Your task to perform on an android device: Clear the cart on target.com. Image 0: 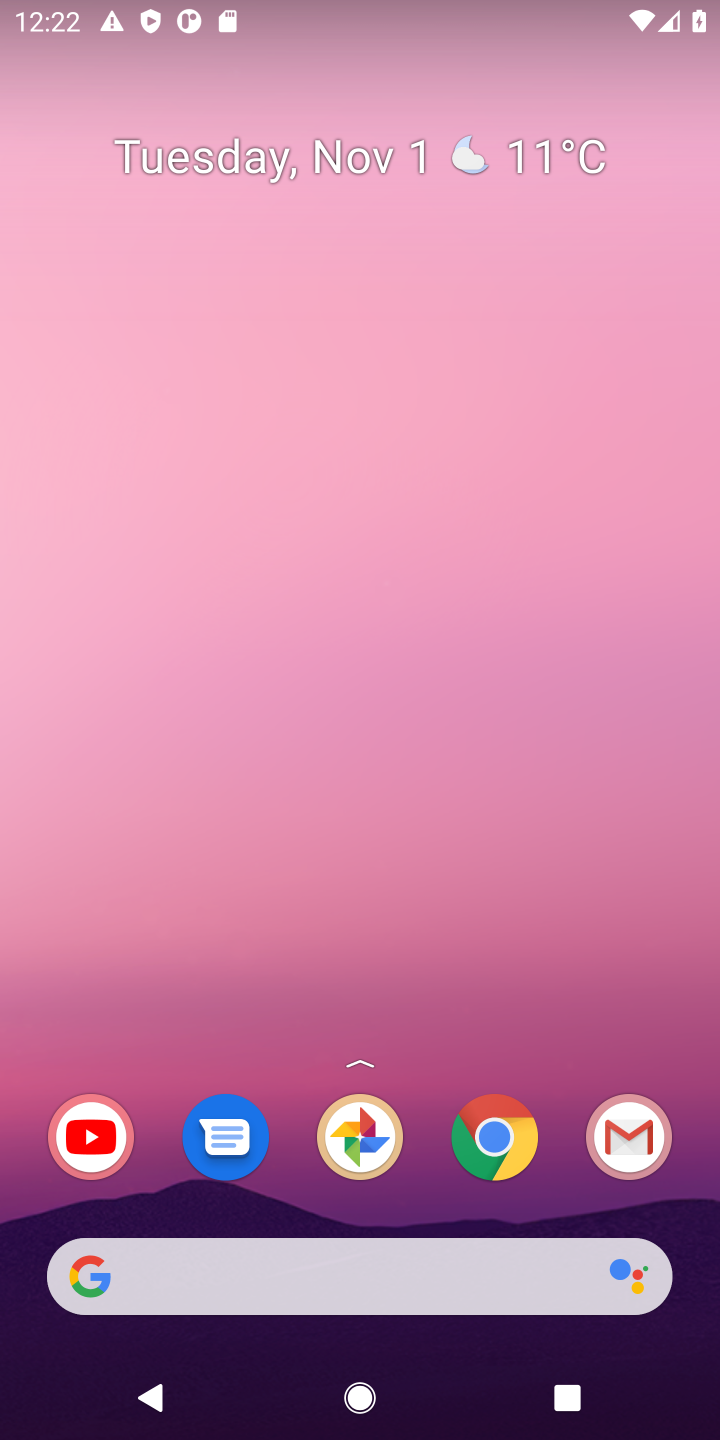
Step 0: click (497, 1151)
Your task to perform on an android device: Clear the cart on target.com. Image 1: 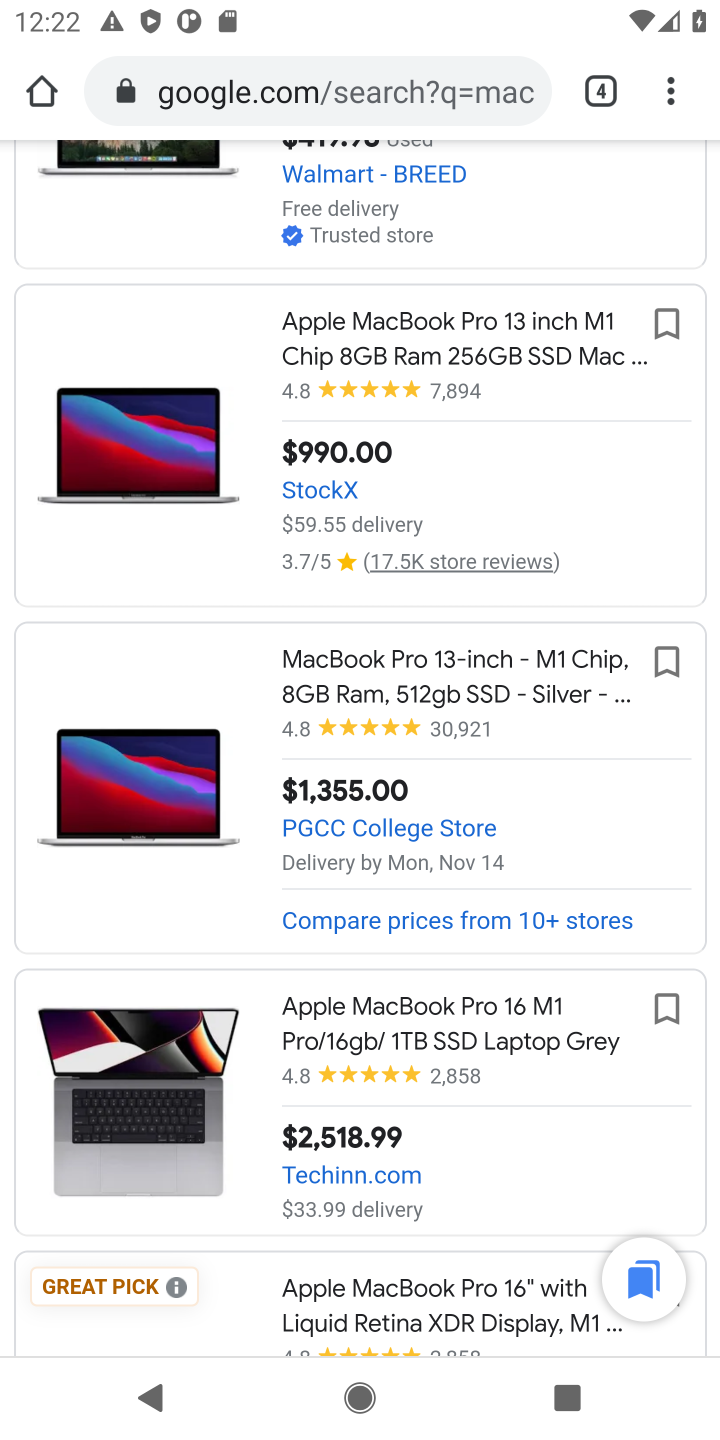
Step 1: click (600, 92)
Your task to perform on an android device: Clear the cart on target.com. Image 2: 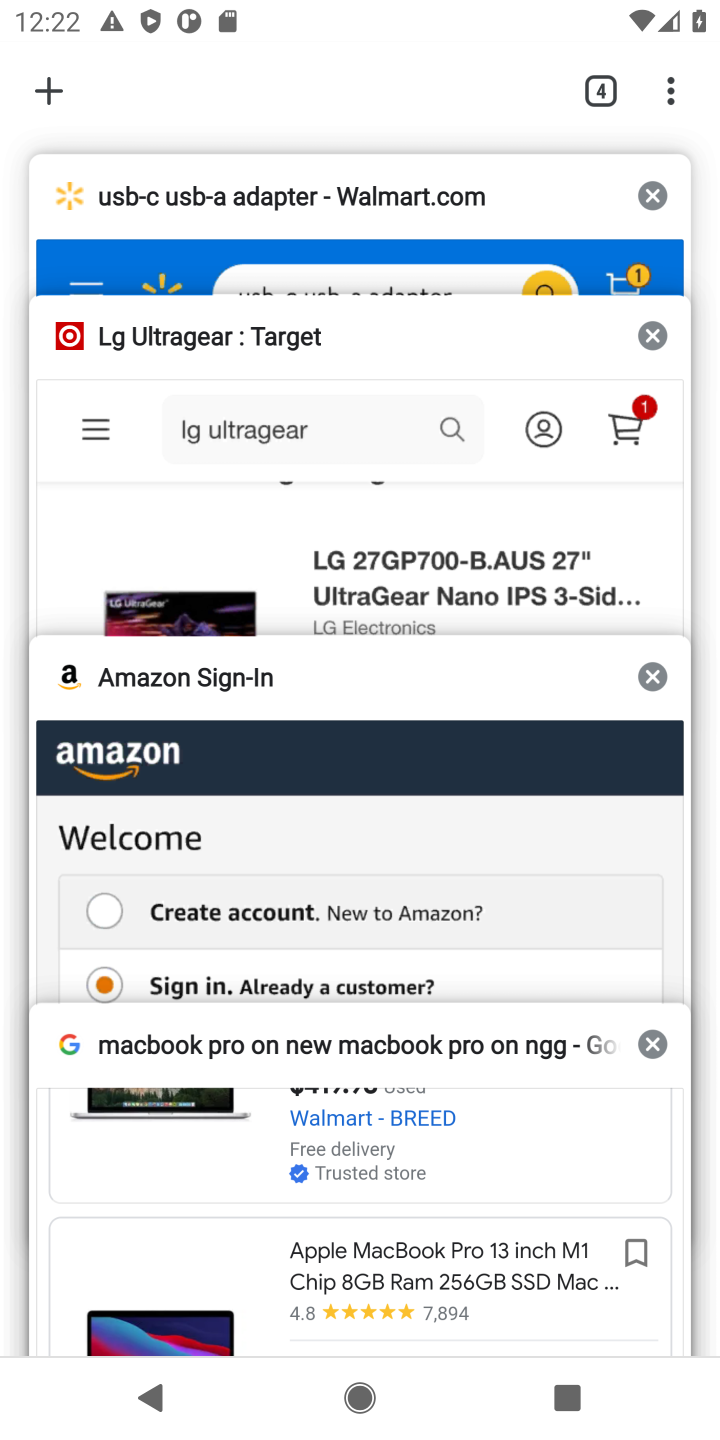
Step 2: click (356, 432)
Your task to perform on an android device: Clear the cart on target.com. Image 3: 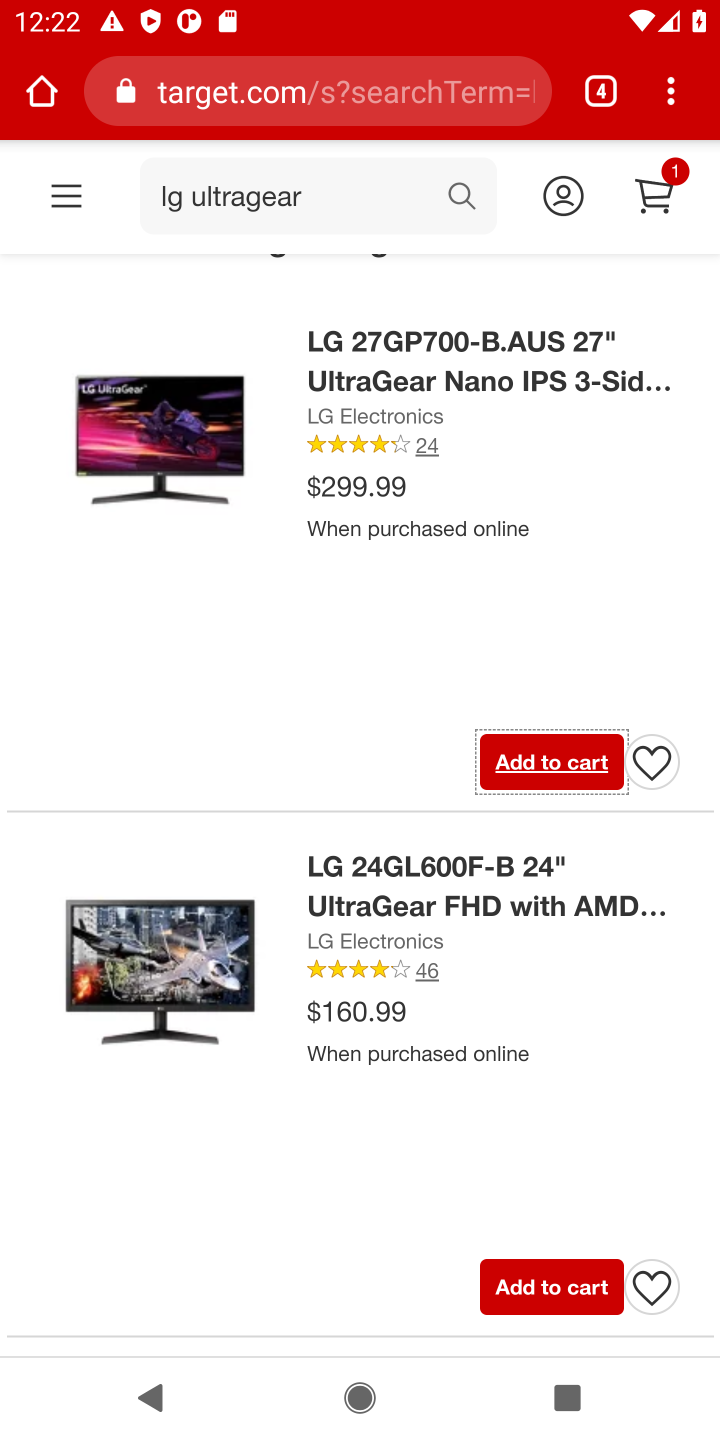
Step 3: click (660, 185)
Your task to perform on an android device: Clear the cart on target.com. Image 4: 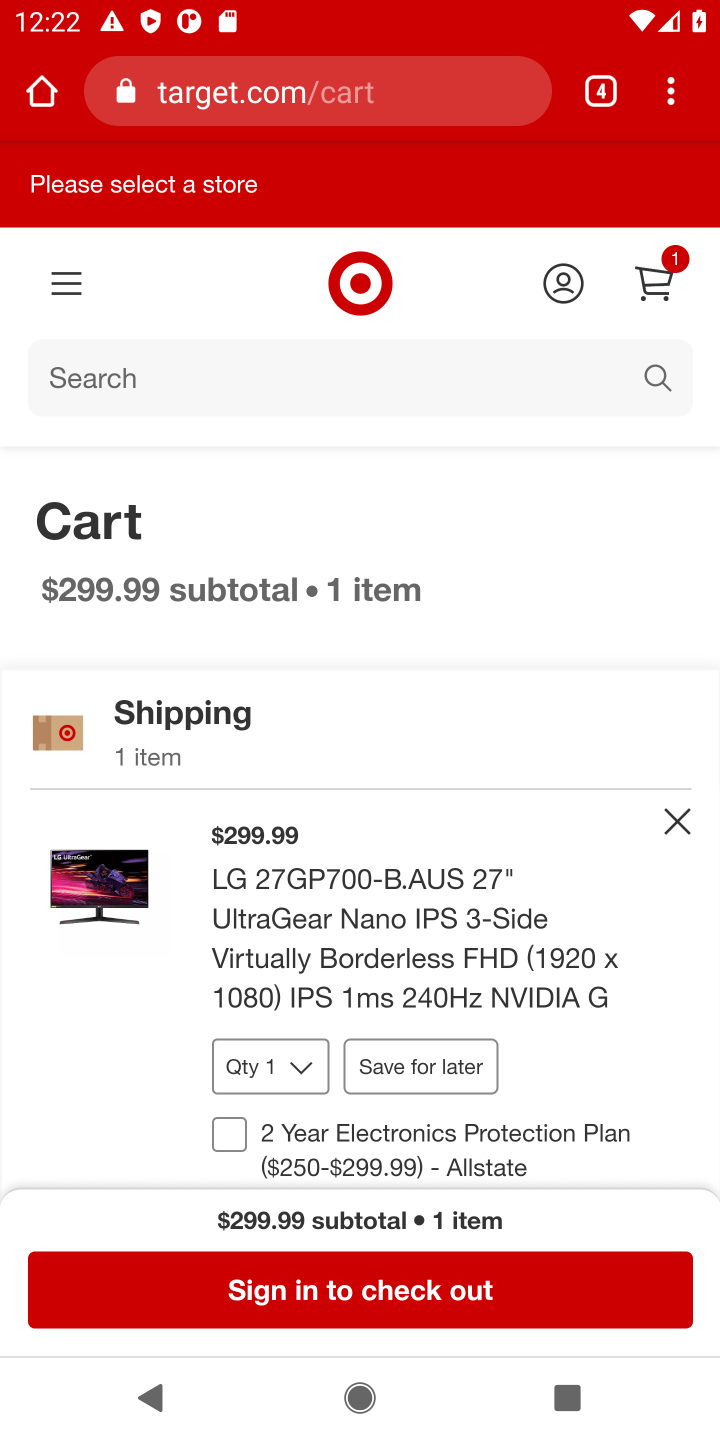
Step 4: click (666, 818)
Your task to perform on an android device: Clear the cart on target.com. Image 5: 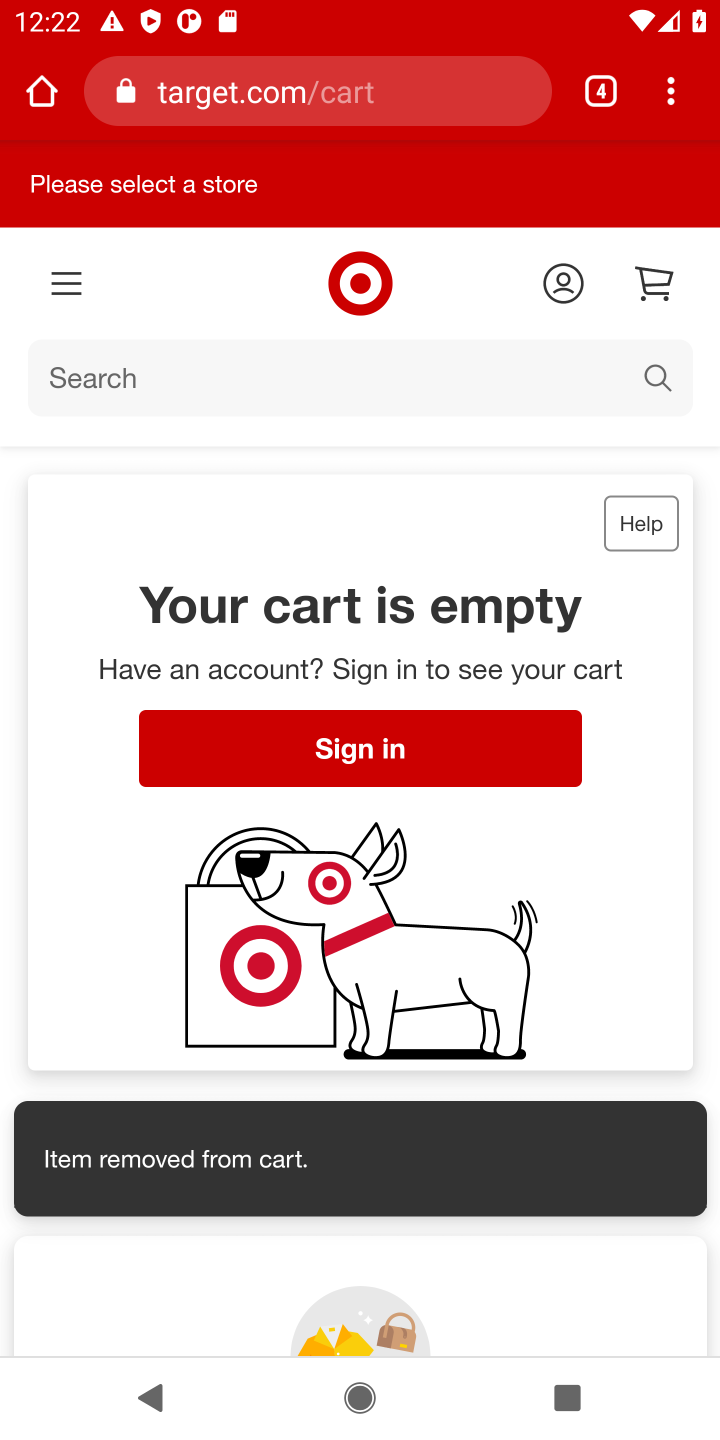
Step 5: task complete